Your task to perform on an android device: check data usage Image 0: 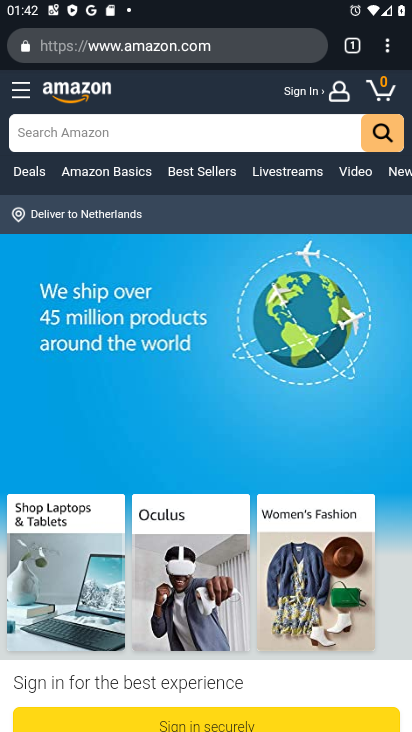
Step 0: press home button
Your task to perform on an android device: check data usage Image 1: 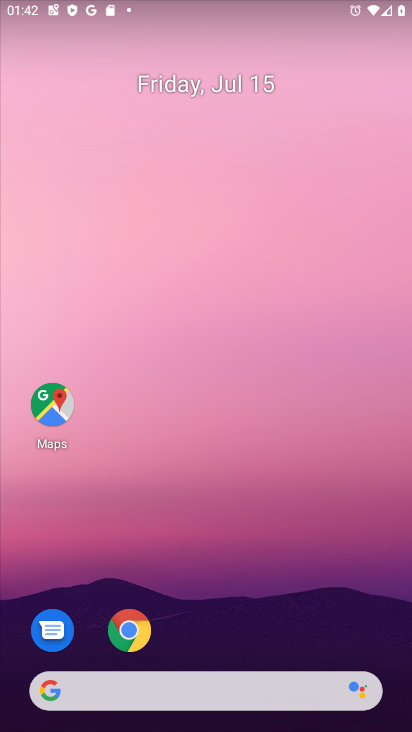
Step 1: drag from (263, 633) to (263, 252)
Your task to perform on an android device: check data usage Image 2: 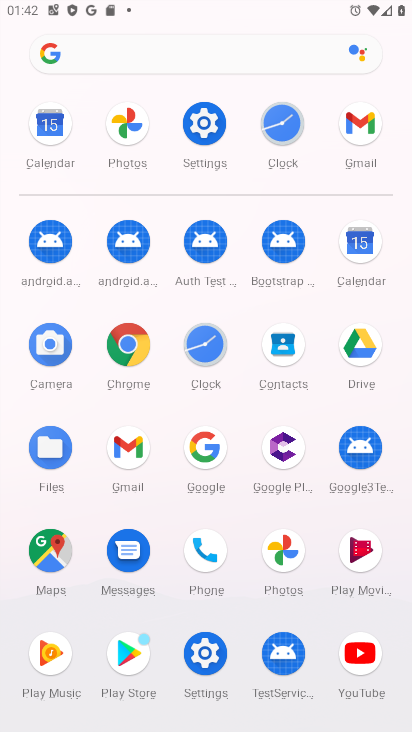
Step 2: click (205, 162)
Your task to perform on an android device: check data usage Image 3: 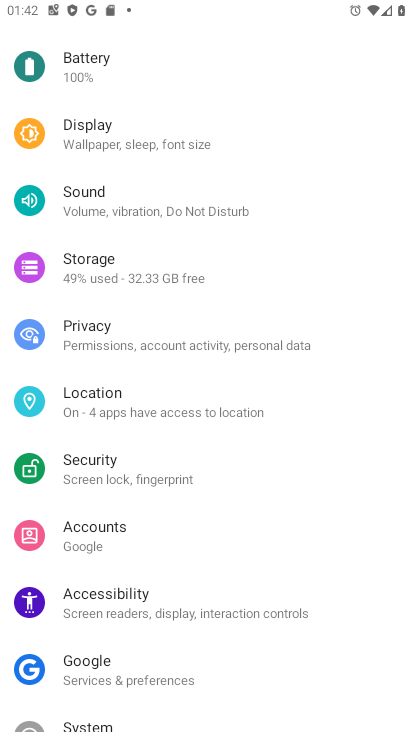
Step 3: drag from (196, 213) to (248, 493)
Your task to perform on an android device: check data usage Image 4: 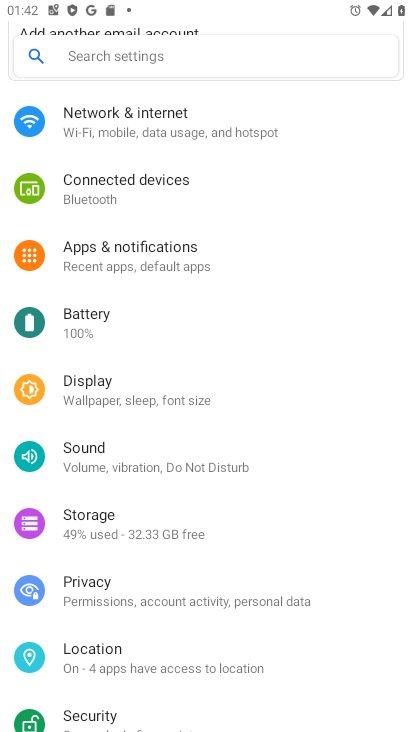
Step 4: click (244, 150)
Your task to perform on an android device: check data usage Image 5: 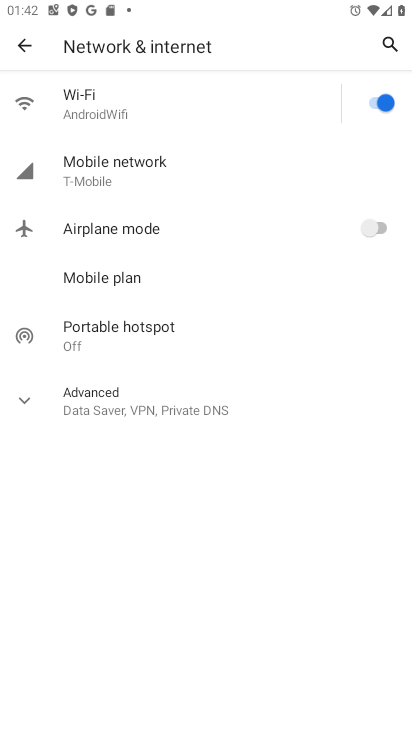
Step 5: click (170, 180)
Your task to perform on an android device: check data usage Image 6: 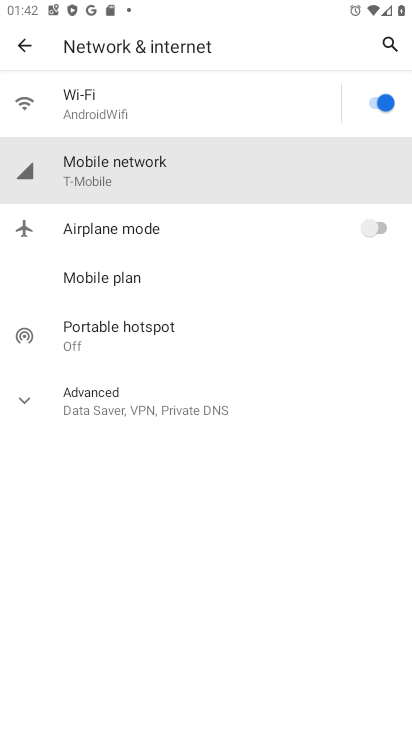
Step 6: task complete